Your task to perform on an android device: Open Chrome and go to the settings page Image 0: 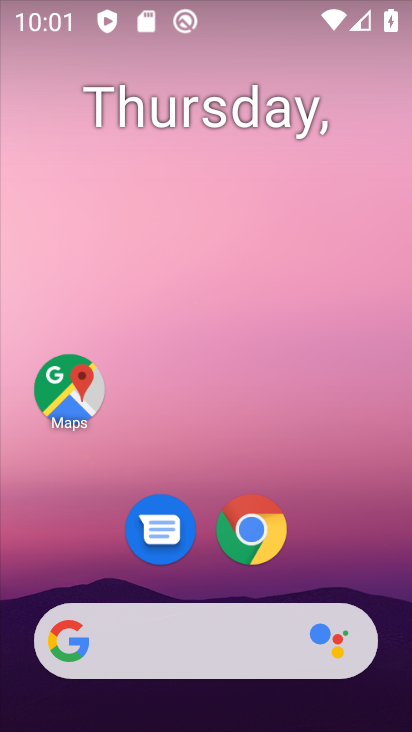
Step 0: click (243, 532)
Your task to perform on an android device: Open Chrome and go to the settings page Image 1: 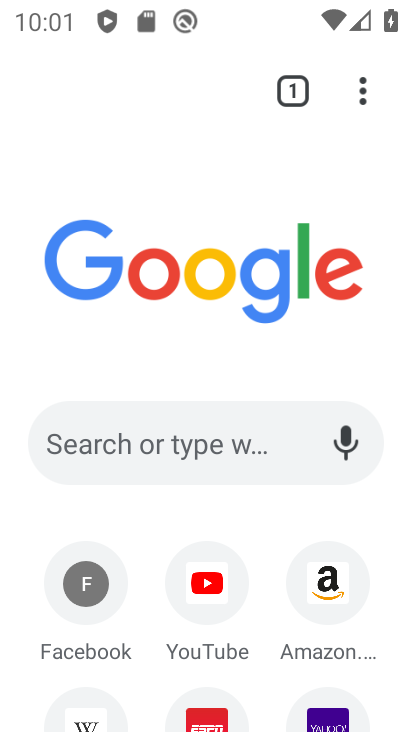
Step 1: click (366, 92)
Your task to perform on an android device: Open Chrome and go to the settings page Image 2: 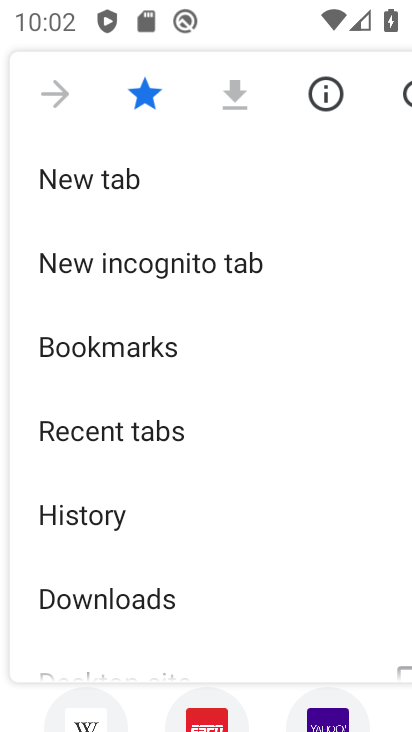
Step 2: drag from (212, 500) to (192, 291)
Your task to perform on an android device: Open Chrome and go to the settings page Image 3: 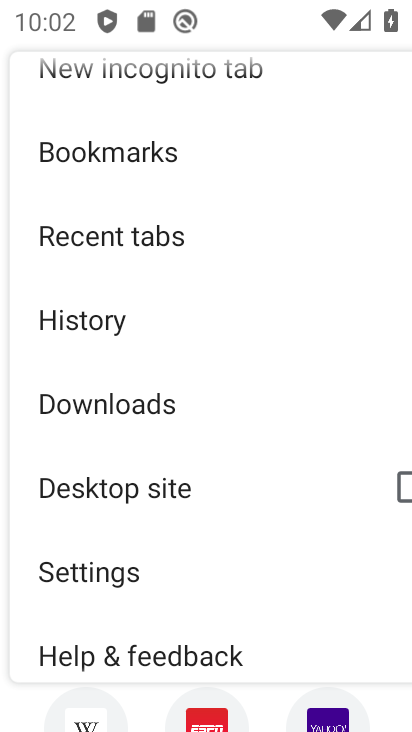
Step 3: click (89, 561)
Your task to perform on an android device: Open Chrome and go to the settings page Image 4: 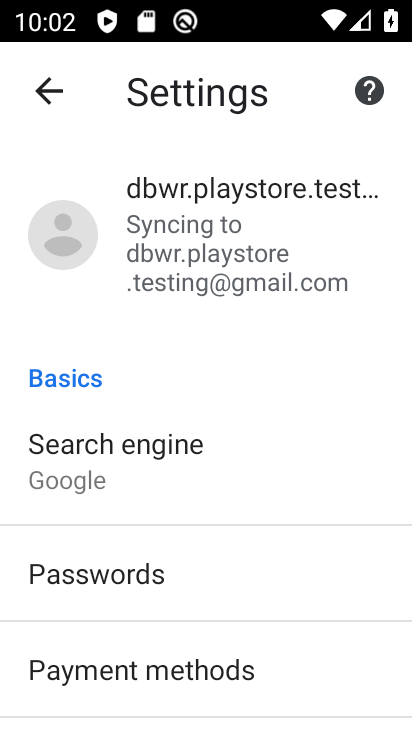
Step 4: task complete